Your task to perform on an android device: toggle wifi Image 0: 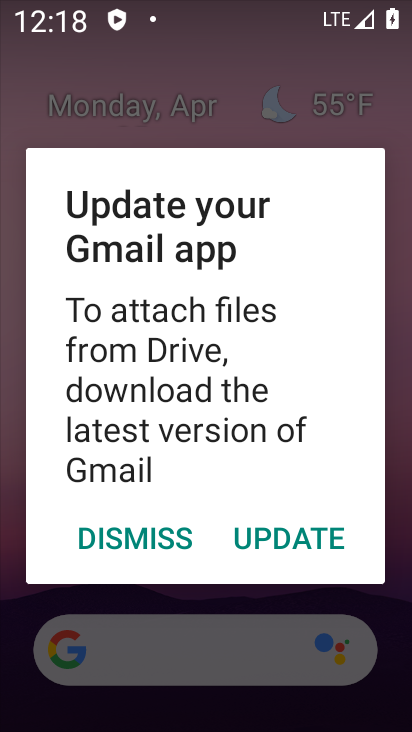
Step 0: press home button
Your task to perform on an android device: toggle wifi Image 1: 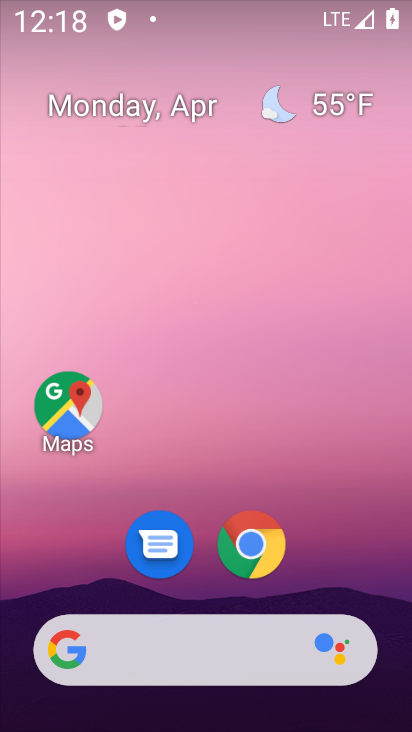
Step 1: drag from (361, 563) to (159, 89)
Your task to perform on an android device: toggle wifi Image 2: 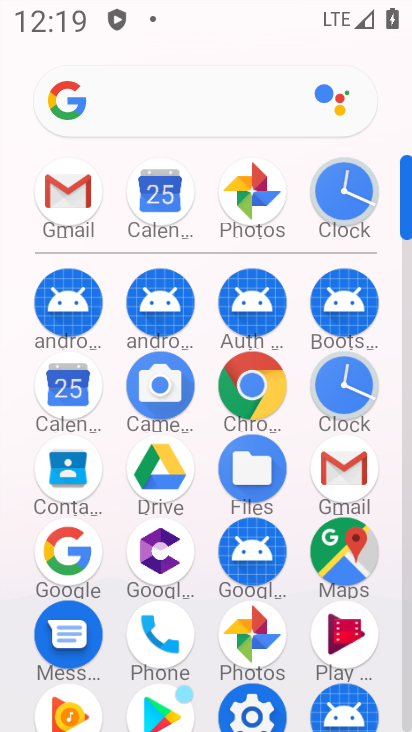
Step 2: click (257, 715)
Your task to perform on an android device: toggle wifi Image 3: 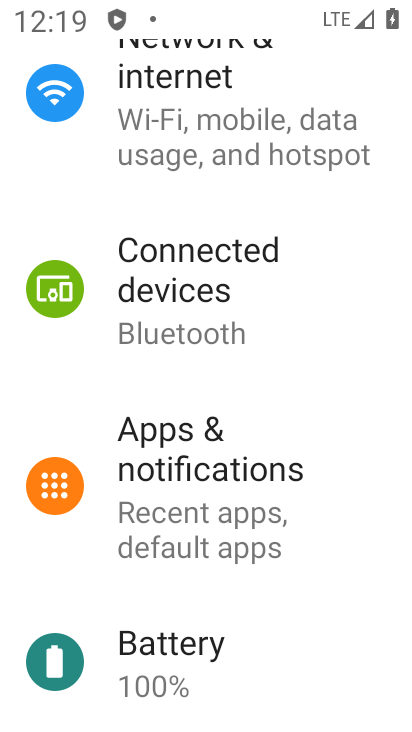
Step 3: click (214, 145)
Your task to perform on an android device: toggle wifi Image 4: 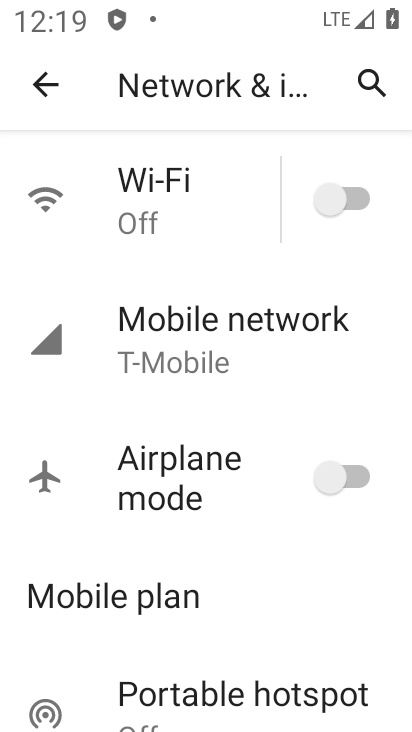
Step 4: click (338, 189)
Your task to perform on an android device: toggle wifi Image 5: 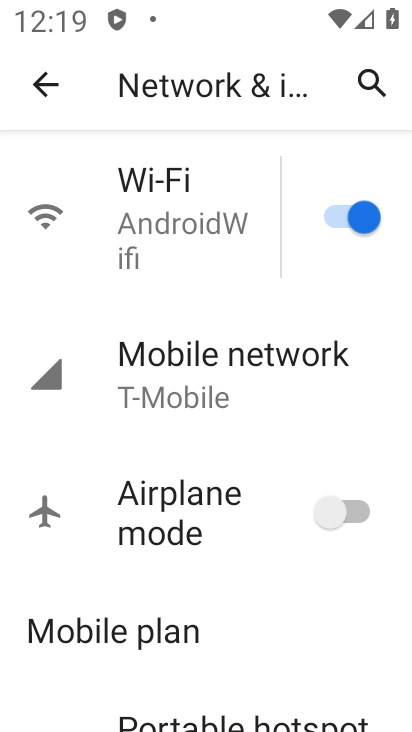
Step 5: task complete